Your task to perform on an android device: add a contact Image 0: 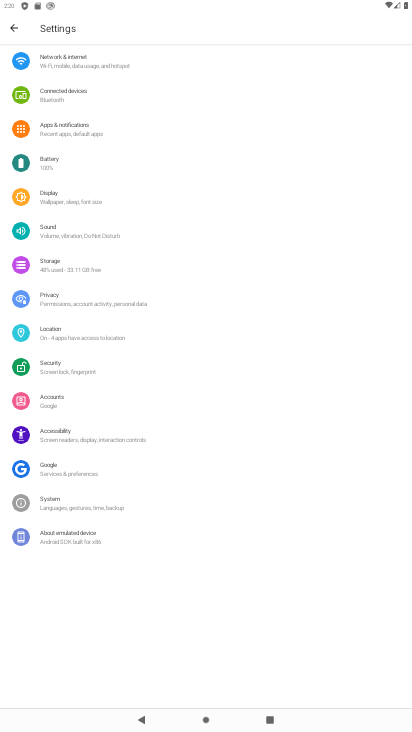
Step 0: press home button
Your task to perform on an android device: add a contact Image 1: 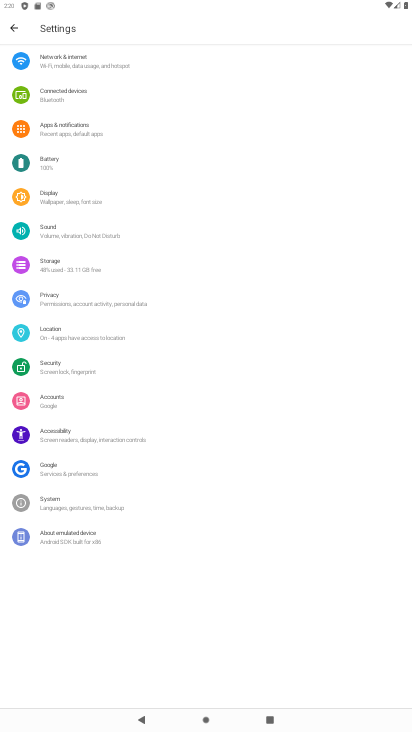
Step 1: press home button
Your task to perform on an android device: add a contact Image 2: 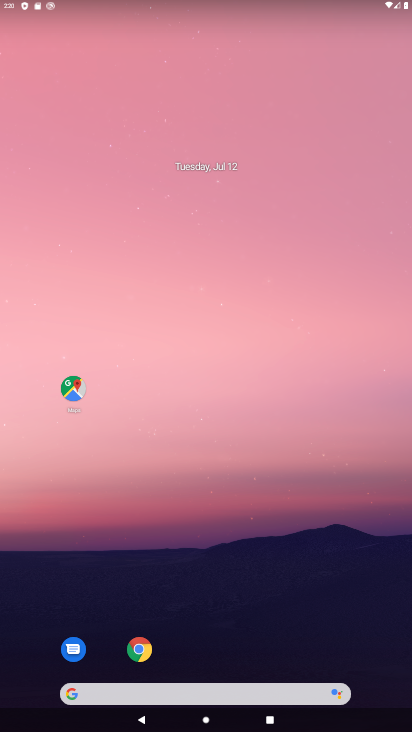
Step 2: drag from (276, 550) to (261, 12)
Your task to perform on an android device: add a contact Image 3: 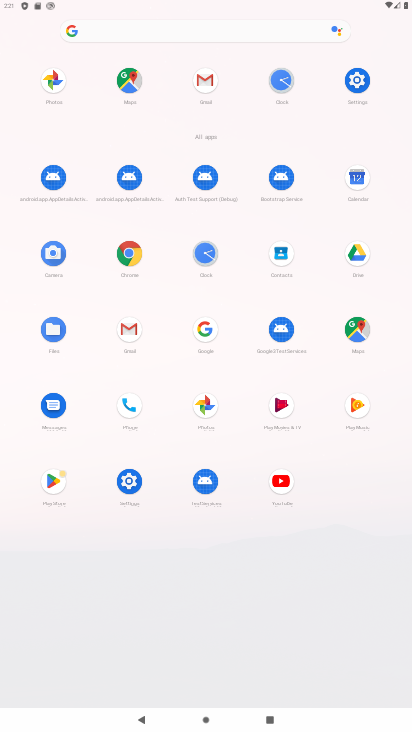
Step 3: click (280, 263)
Your task to perform on an android device: add a contact Image 4: 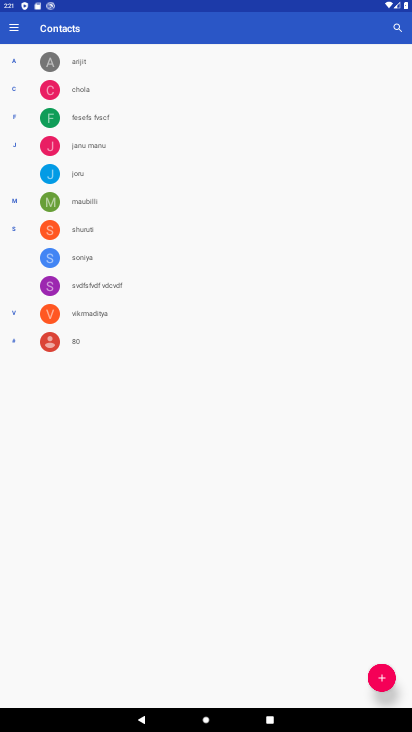
Step 4: click (379, 681)
Your task to perform on an android device: add a contact Image 5: 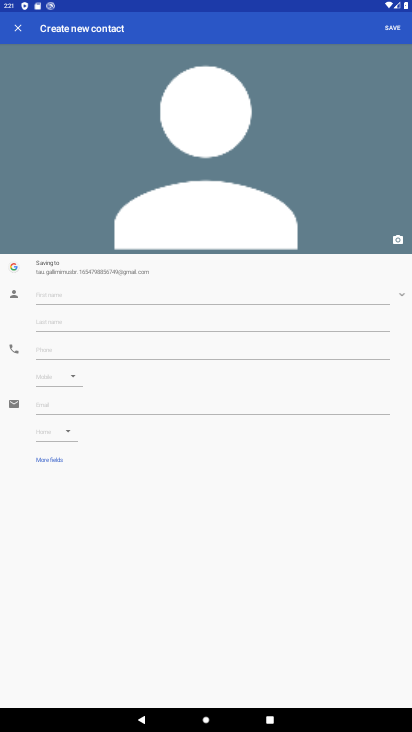
Step 5: click (189, 291)
Your task to perform on an android device: add a contact Image 6: 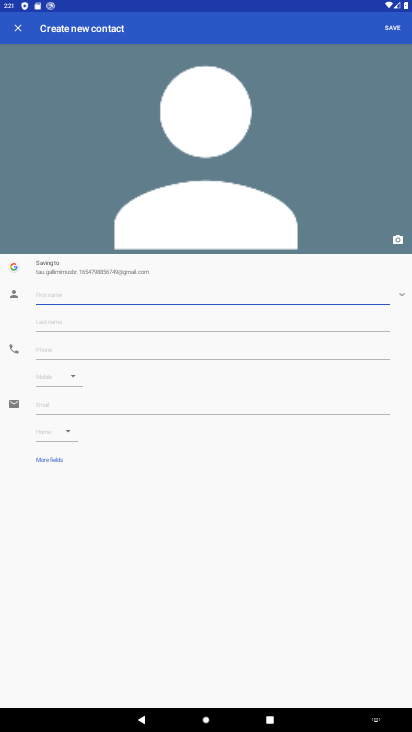
Step 6: click (189, 291)
Your task to perform on an android device: add a contact Image 7: 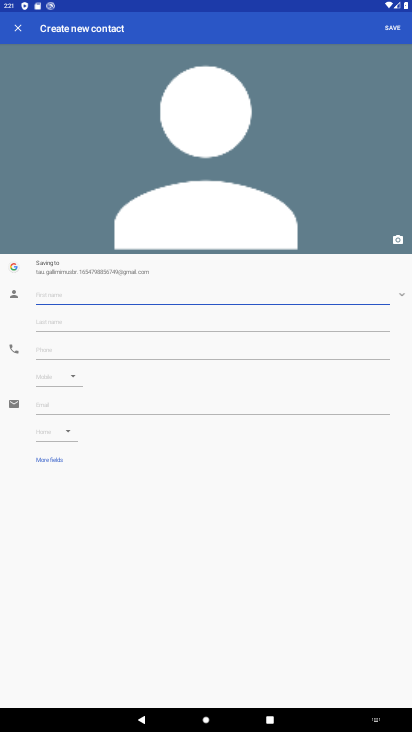
Step 7: type "CNN.com"
Your task to perform on an android device: add a contact Image 8: 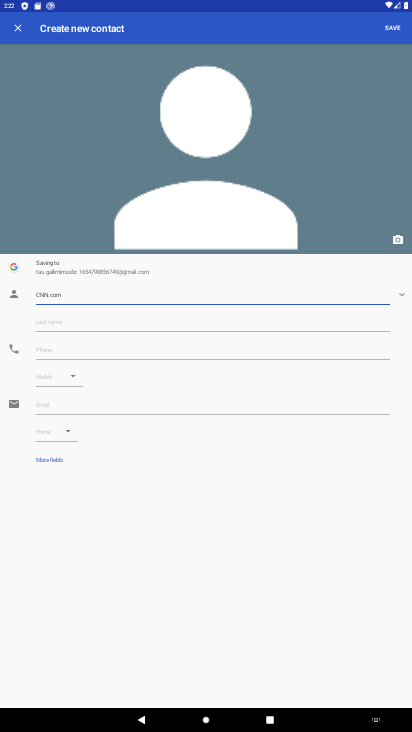
Step 8: type "arohiu"
Your task to perform on an android device: add a contact Image 9: 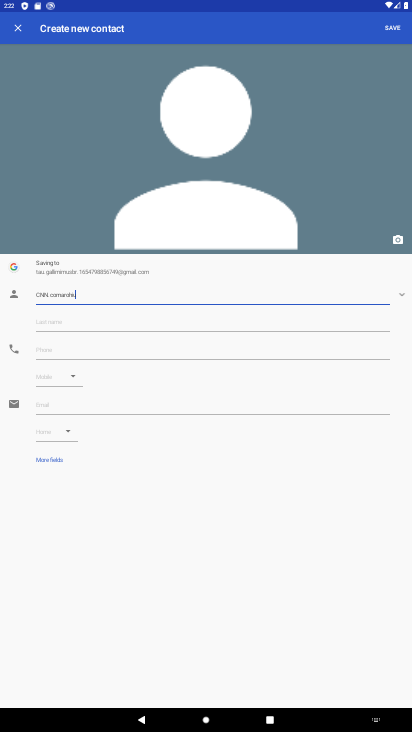
Step 9: click (124, 318)
Your task to perform on an android device: add a contact Image 10: 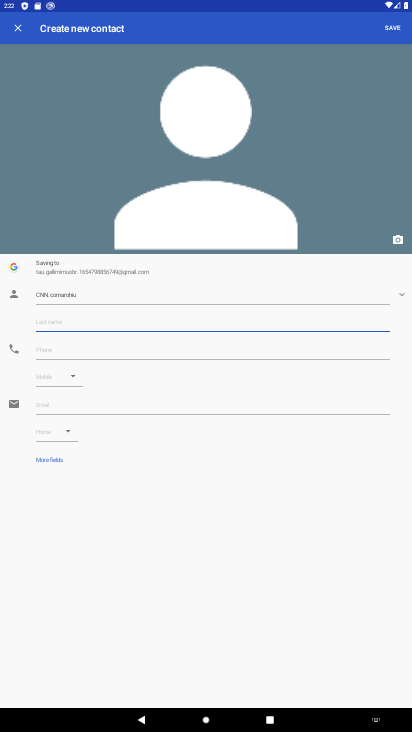
Step 10: click (47, 353)
Your task to perform on an android device: add a contact Image 11: 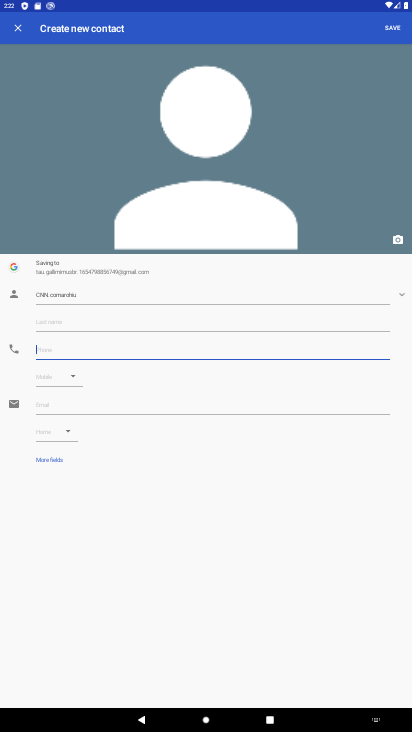
Step 11: type "567695"
Your task to perform on an android device: add a contact Image 12: 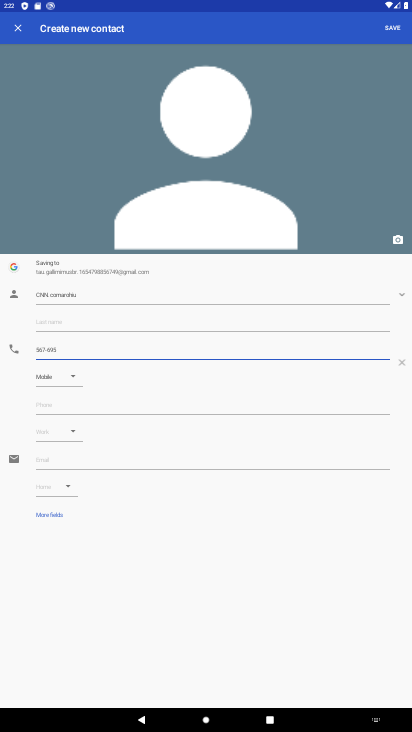
Step 12: click (392, 31)
Your task to perform on an android device: add a contact Image 13: 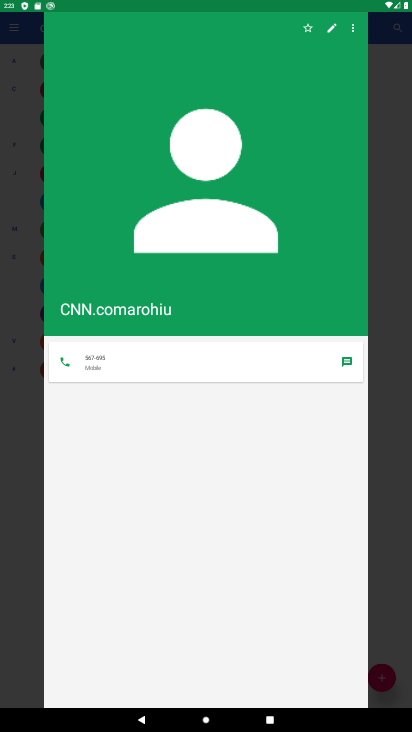
Step 13: task complete